Your task to perform on an android device: Go to Maps Image 0: 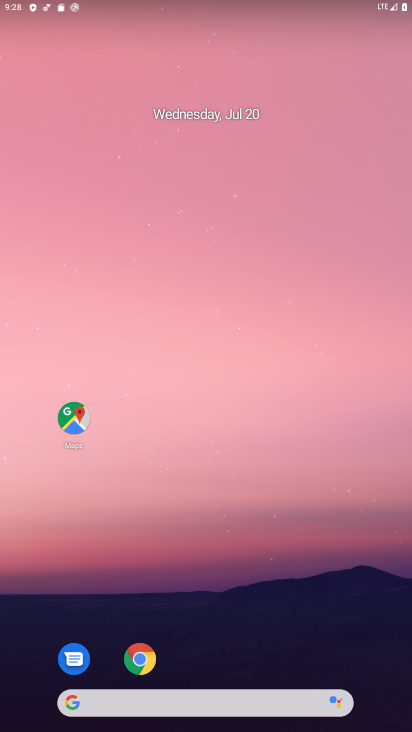
Step 0: click (66, 414)
Your task to perform on an android device: Go to Maps Image 1: 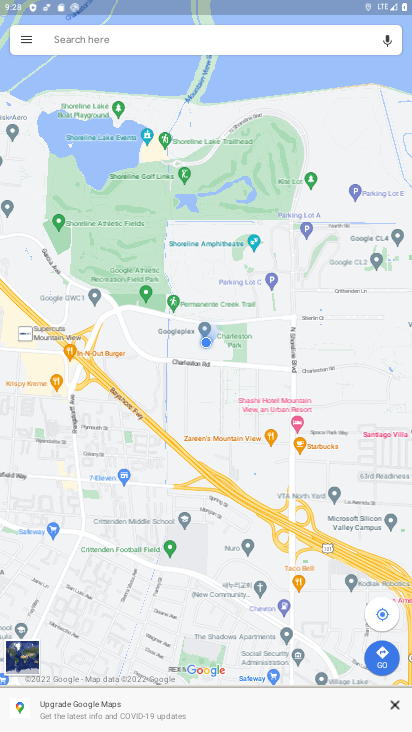
Step 1: task complete